Your task to perform on an android device: add a label to a message in the gmail app Image 0: 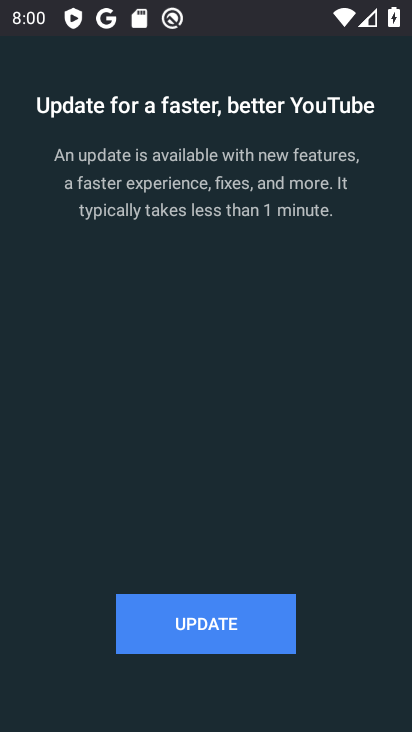
Step 0: press home button
Your task to perform on an android device: add a label to a message in the gmail app Image 1: 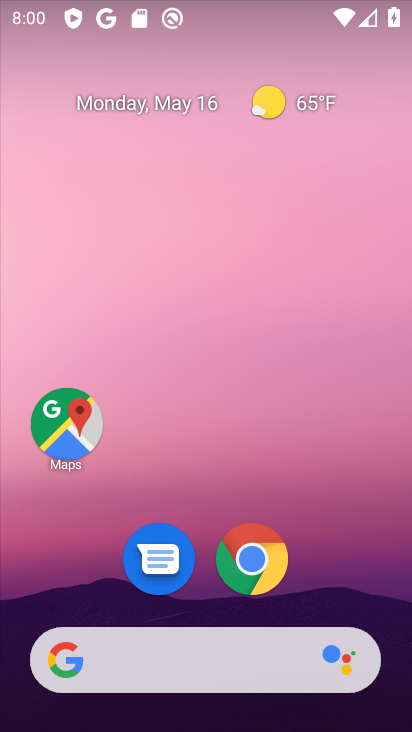
Step 1: drag from (187, 596) to (287, 82)
Your task to perform on an android device: add a label to a message in the gmail app Image 2: 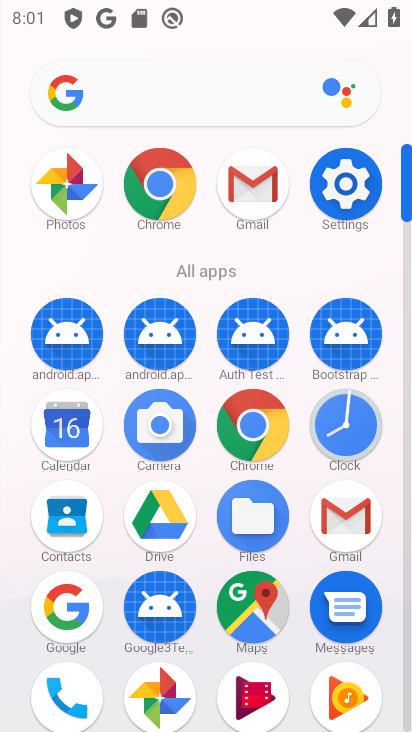
Step 2: click (252, 186)
Your task to perform on an android device: add a label to a message in the gmail app Image 3: 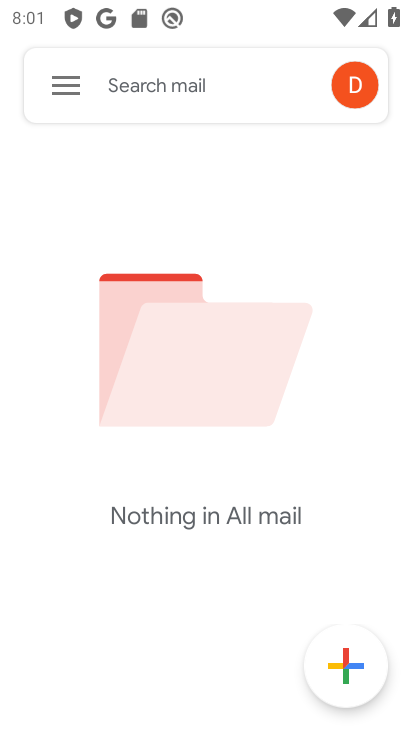
Step 3: task complete